Your task to perform on an android device: change the clock display to analog Image 0: 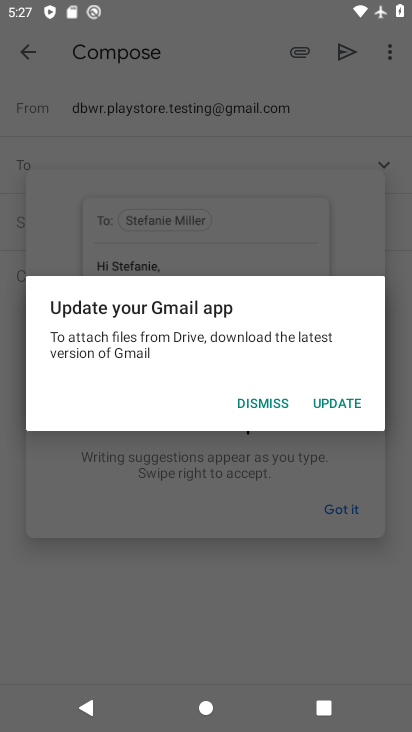
Step 0: press back button
Your task to perform on an android device: change the clock display to analog Image 1: 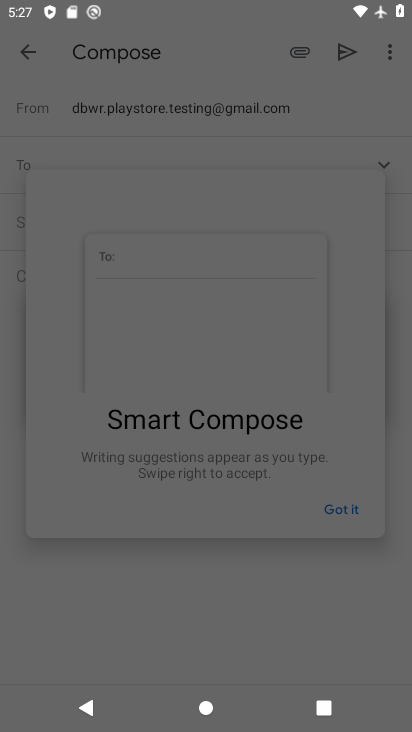
Step 1: press home button
Your task to perform on an android device: change the clock display to analog Image 2: 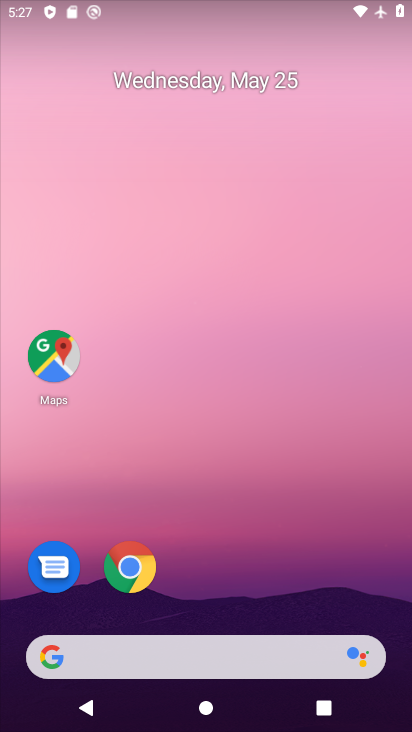
Step 2: drag from (233, 561) to (197, 8)
Your task to perform on an android device: change the clock display to analog Image 3: 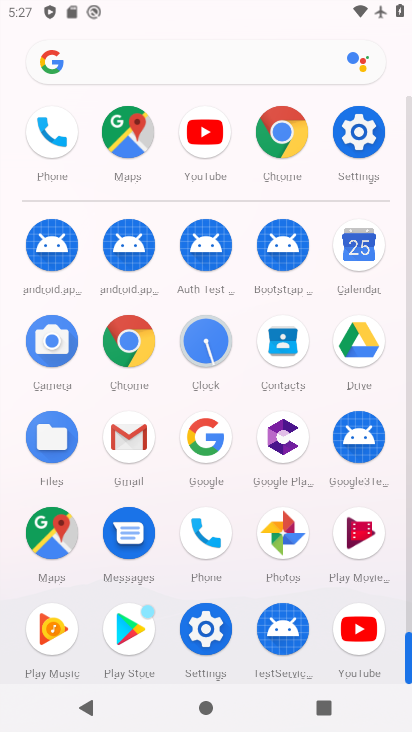
Step 3: drag from (9, 538) to (9, 225)
Your task to perform on an android device: change the clock display to analog Image 4: 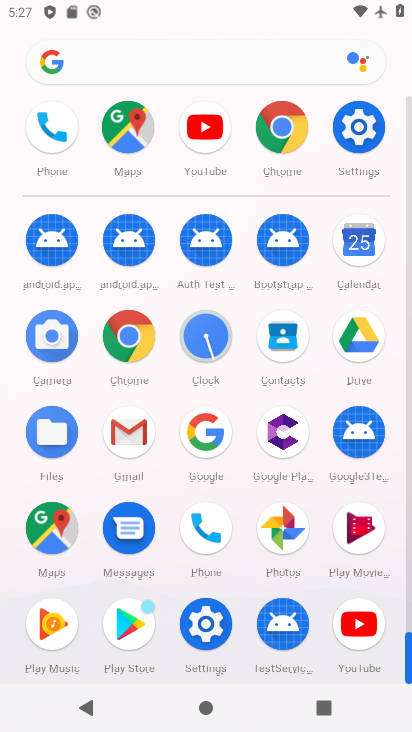
Step 4: drag from (9, 610) to (6, 285)
Your task to perform on an android device: change the clock display to analog Image 5: 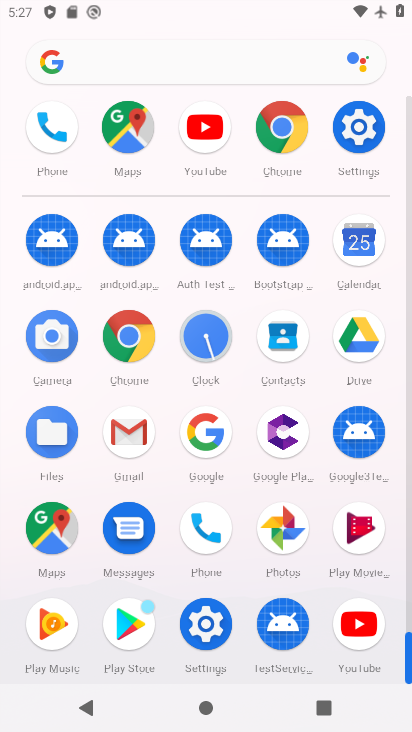
Step 5: click (209, 337)
Your task to perform on an android device: change the clock display to analog Image 6: 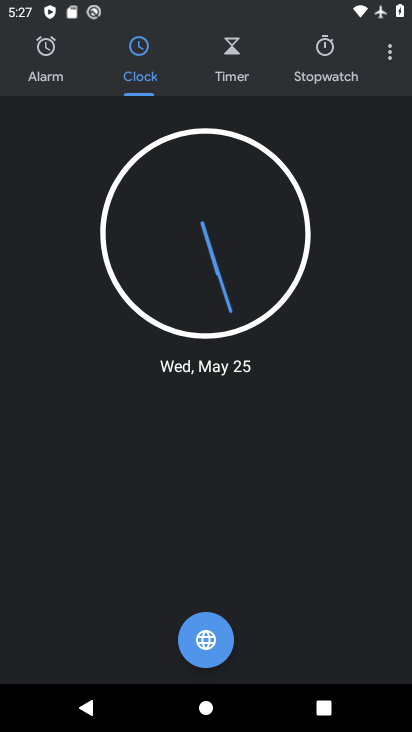
Step 6: drag from (389, 44) to (324, 112)
Your task to perform on an android device: change the clock display to analog Image 7: 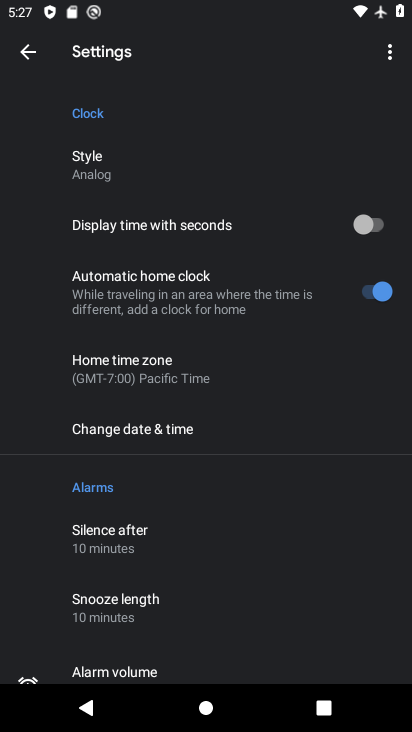
Step 7: click (155, 170)
Your task to perform on an android device: change the clock display to analog Image 8: 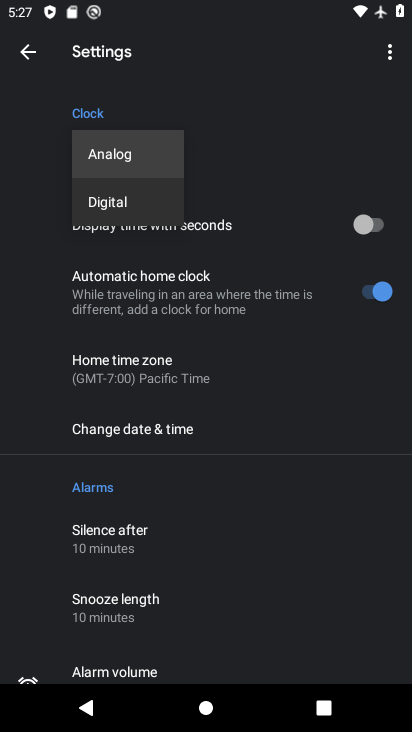
Step 8: click (155, 170)
Your task to perform on an android device: change the clock display to analog Image 9: 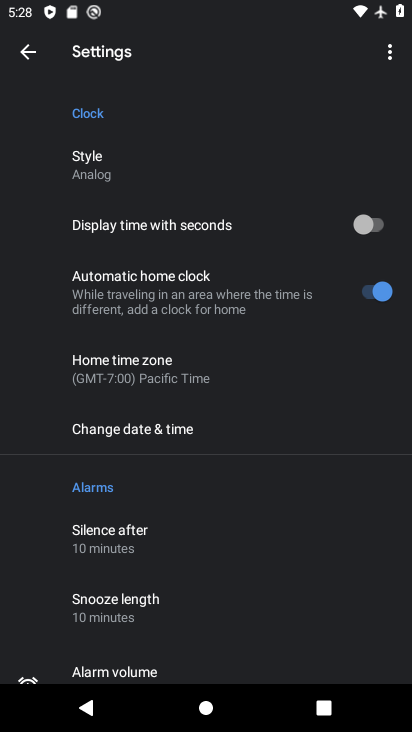
Step 9: task complete